Your task to perform on an android device: Open sound settings Image 0: 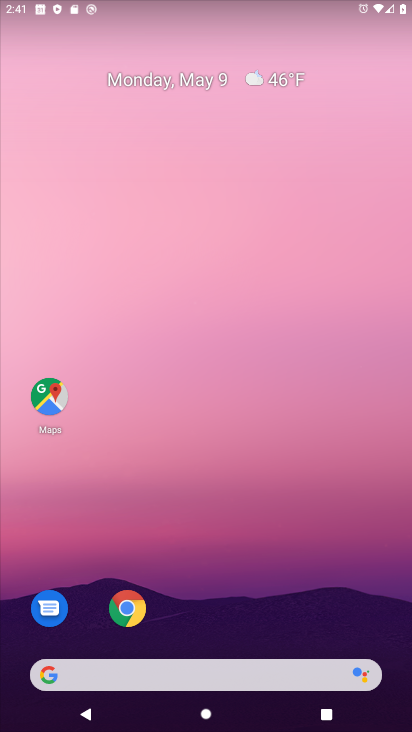
Step 0: drag from (237, 479) to (278, 264)
Your task to perform on an android device: Open sound settings Image 1: 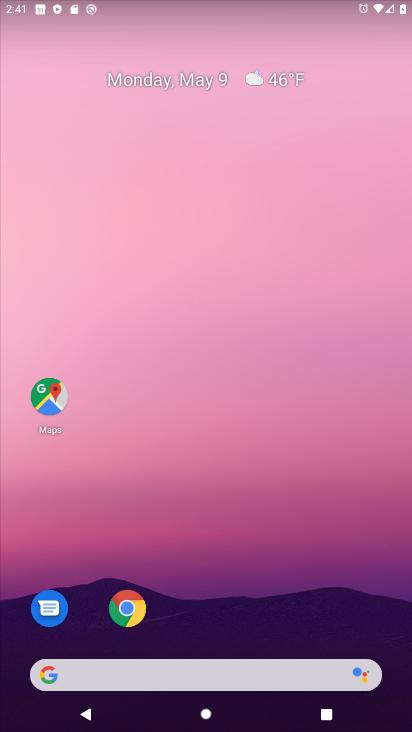
Step 1: drag from (205, 538) to (210, 333)
Your task to perform on an android device: Open sound settings Image 2: 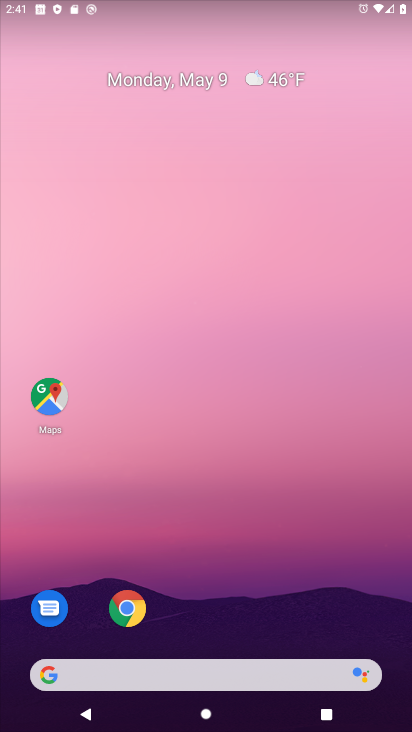
Step 2: drag from (207, 639) to (200, 223)
Your task to perform on an android device: Open sound settings Image 3: 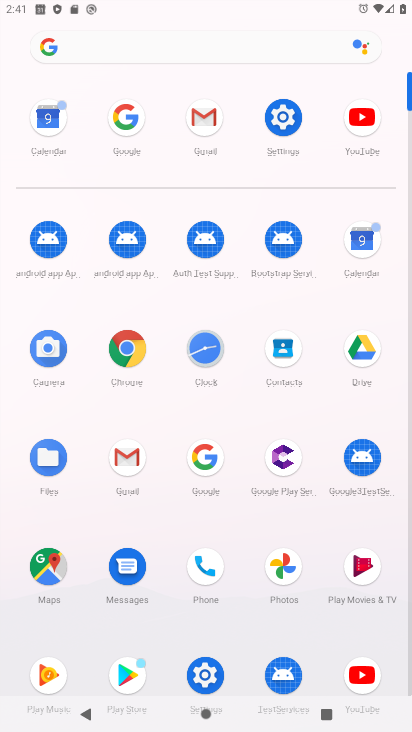
Step 3: click (278, 119)
Your task to perform on an android device: Open sound settings Image 4: 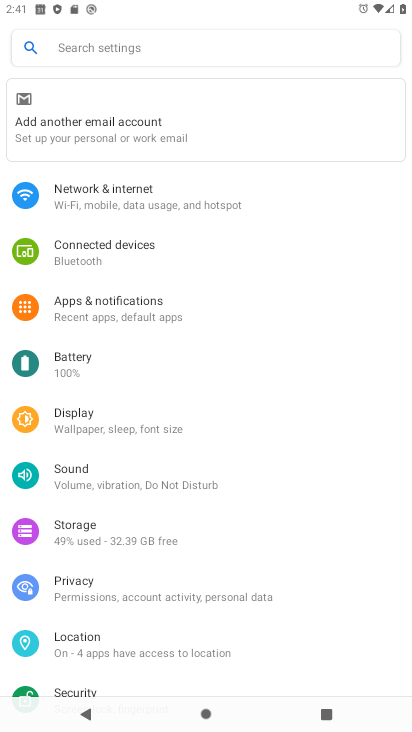
Step 4: click (131, 487)
Your task to perform on an android device: Open sound settings Image 5: 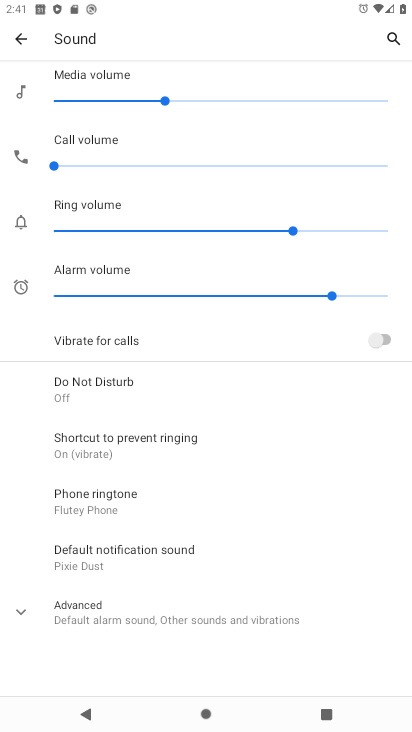
Step 5: click (105, 470)
Your task to perform on an android device: Open sound settings Image 6: 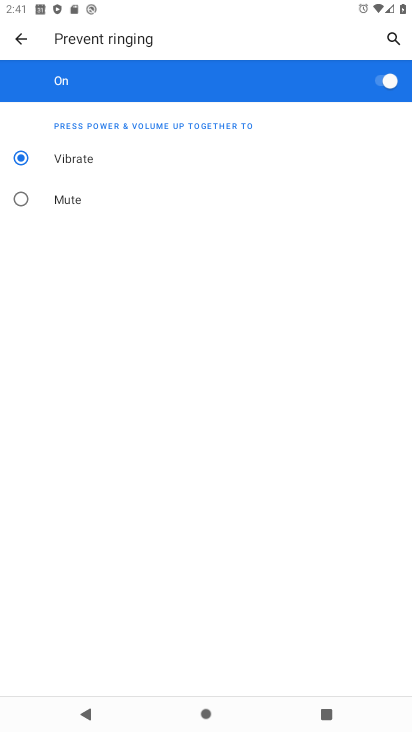
Step 6: click (10, 38)
Your task to perform on an android device: Open sound settings Image 7: 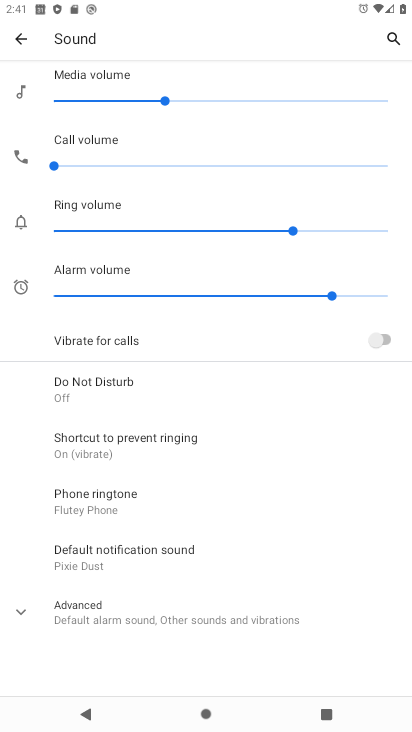
Step 7: task complete